Your task to perform on an android device: star an email in the gmail app Image 0: 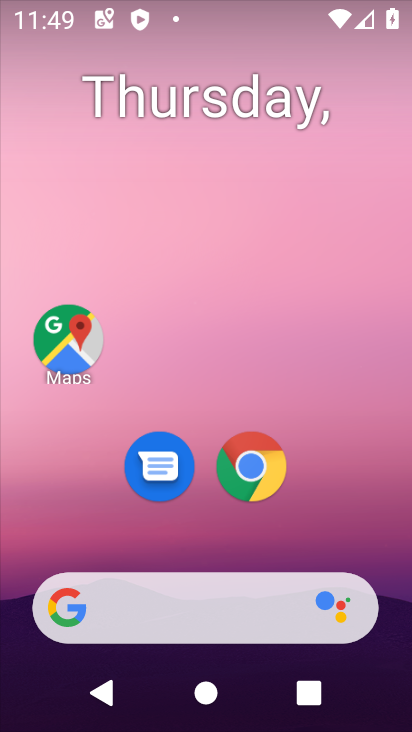
Step 0: drag from (394, 616) to (315, 15)
Your task to perform on an android device: star an email in the gmail app Image 1: 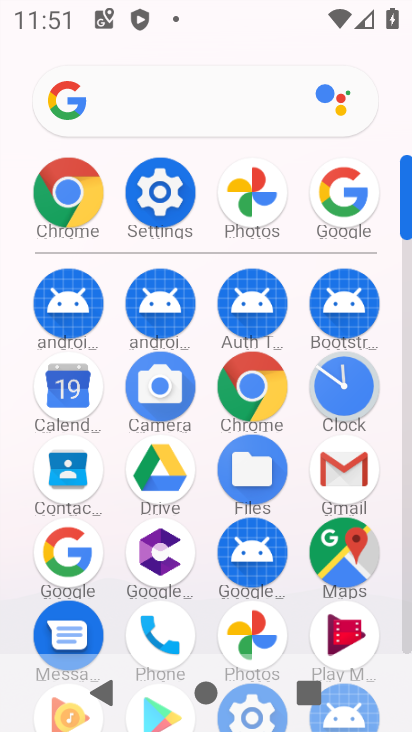
Step 1: click (318, 478)
Your task to perform on an android device: star an email in the gmail app Image 2: 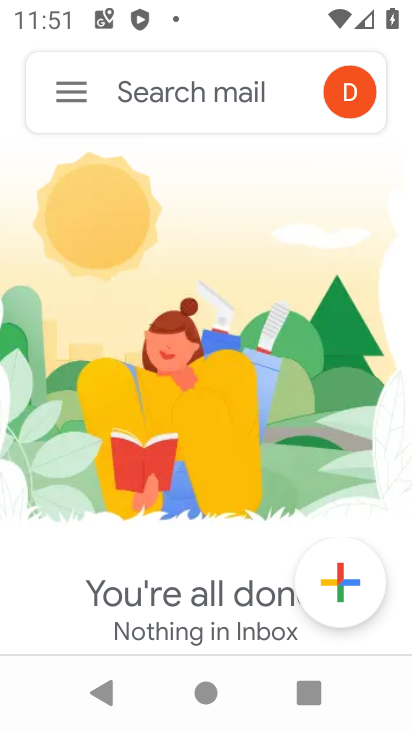
Step 2: task complete